Your task to perform on an android device: move a message to another label in the gmail app Image 0: 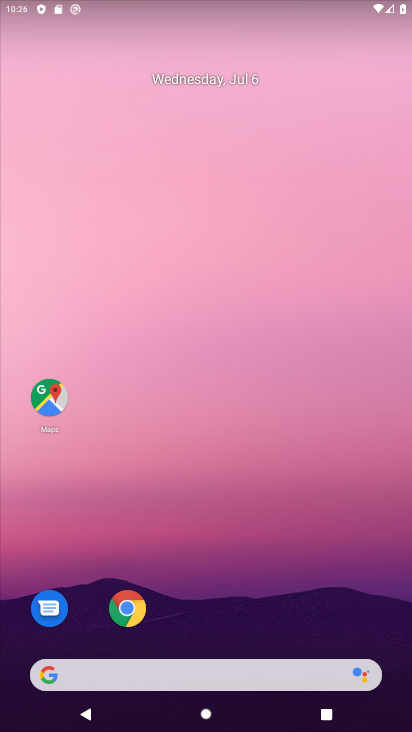
Step 0: drag from (298, 618) to (304, 188)
Your task to perform on an android device: move a message to another label in the gmail app Image 1: 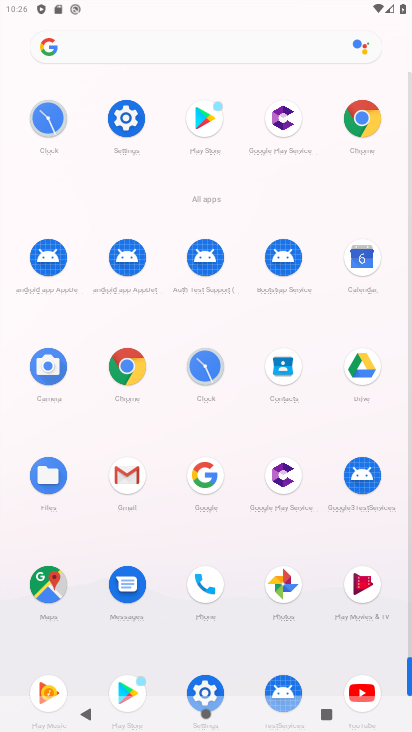
Step 1: click (133, 472)
Your task to perform on an android device: move a message to another label in the gmail app Image 2: 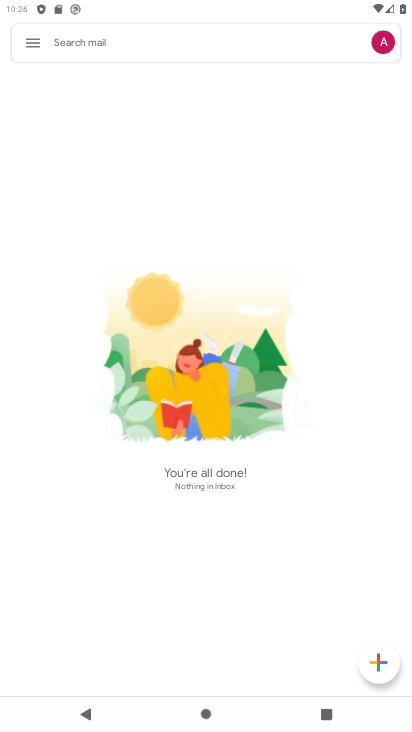
Step 2: task complete